Your task to perform on an android device: change timer sound Image 0: 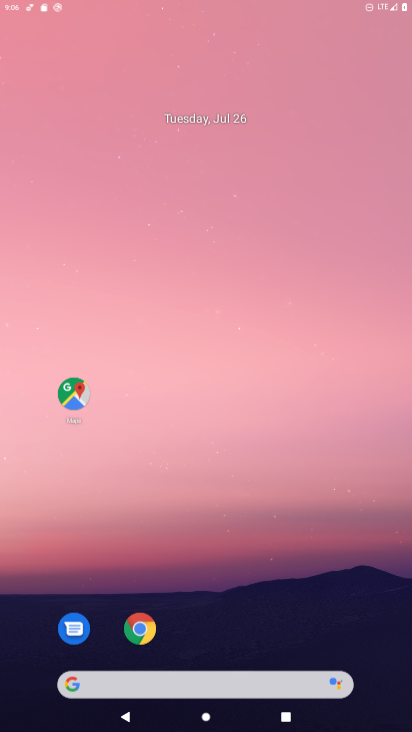
Step 0: press home button
Your task to perform on an android device: change timer sound Image 1: 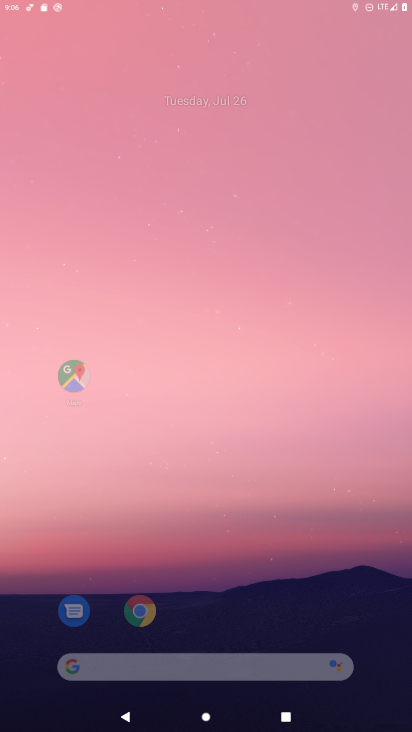
Step 1: drag from (267, 663) to (276, 124)
Your task to perform on an android device: change timer sound Image 2: 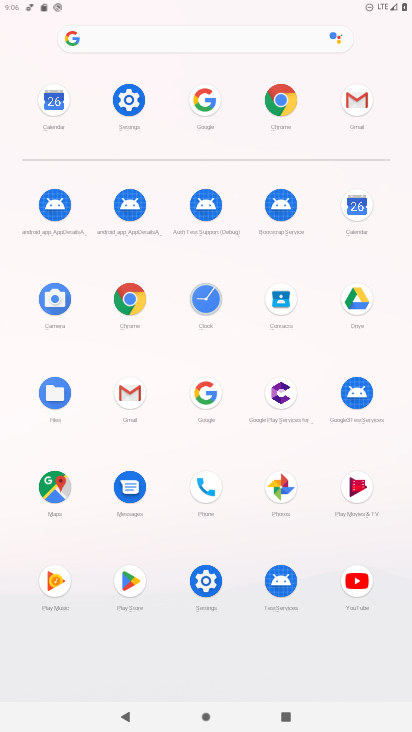
Step 2: click (202, 283)
Your task to perform on an android device: change timer sound Image 3: 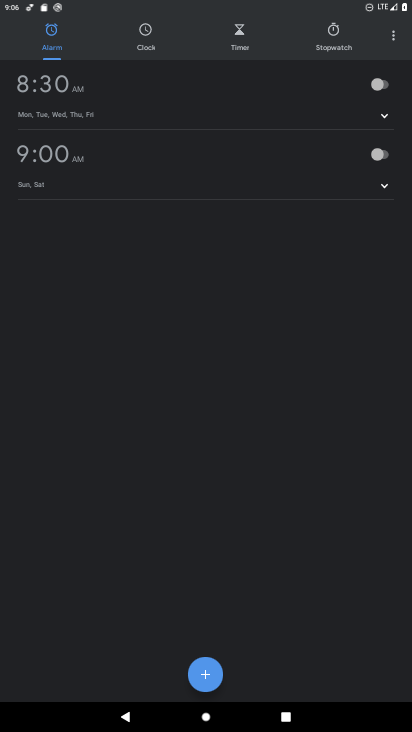
Step 3: click (396, 39)
Your task to perform on an android device: change timer sound Image 4: 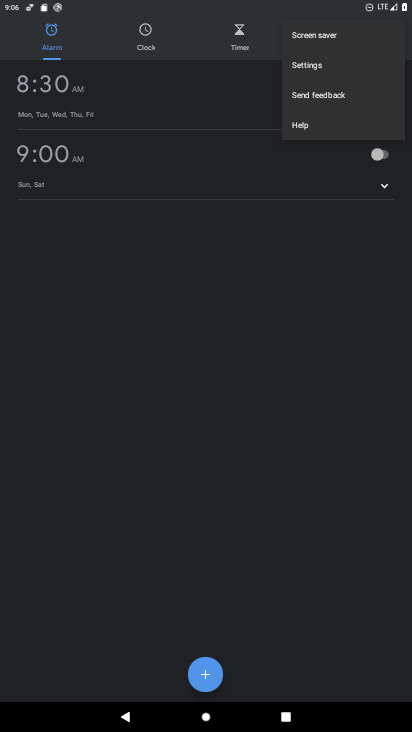
Step 4: click (302, 64)
Your task to perform on an android device: change timer sound Image 5: 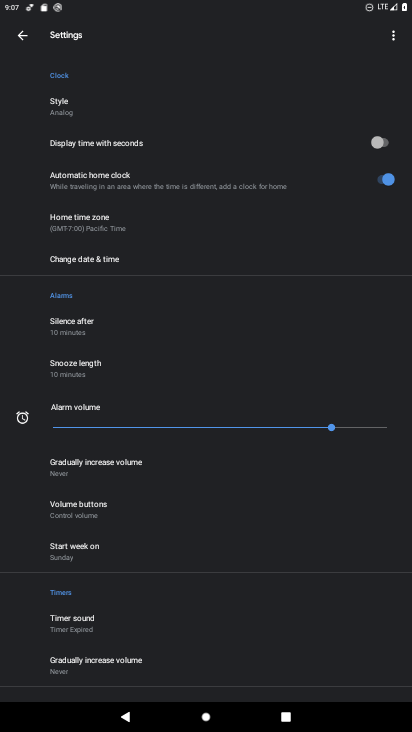
Step 5: drag from (141, 469) to (140, 233)
Your task to perform on an android device: change timer sound Image 6: 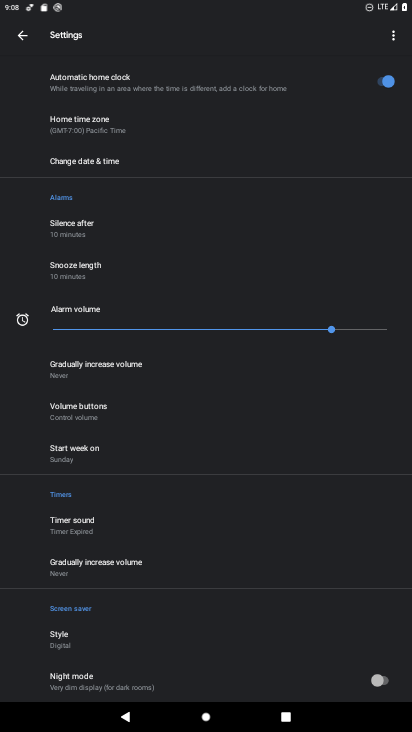
Step 6: drag from (130, 394) to (130, 203)
Your task to perform on an android device: change timer sound Image 7: 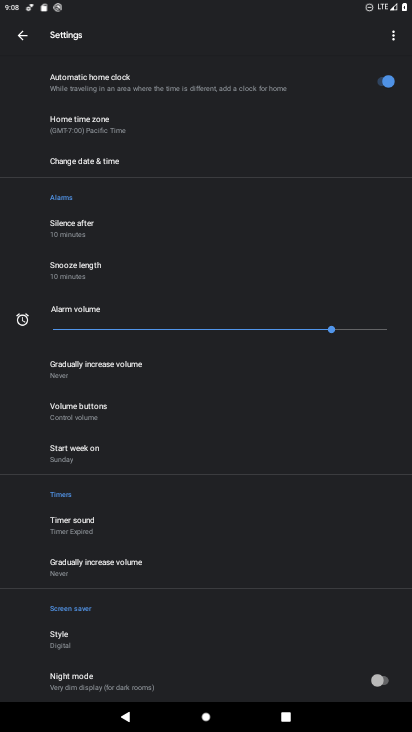
Step 7: click (80, 521)
Your task to perform on an android device: change timer sound Image 8: 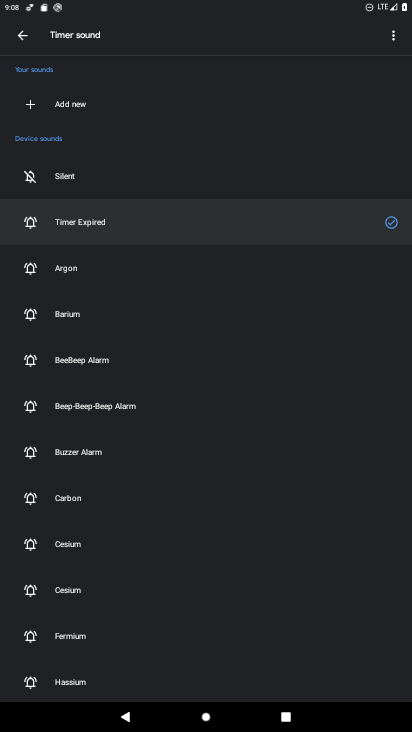
Step 8: click (67, 445)
Your task to perform on an android device: change timer sound Image 9: 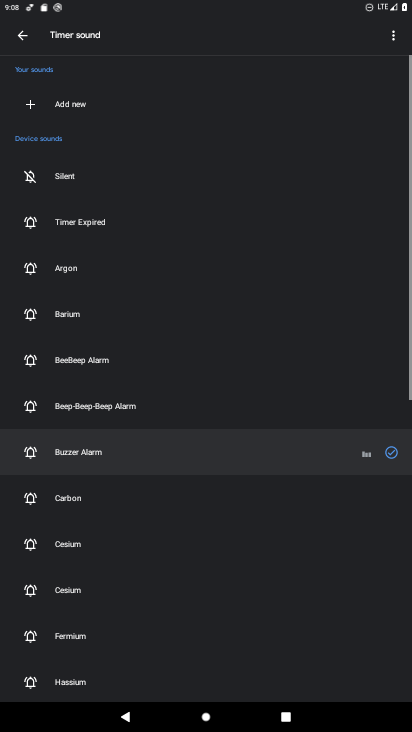
Step 9: task complete